Your task to perform on an android device: Search for "razer huntsman" on amazon, select the first entry, add it to the cart, then select checkout. Image 0: 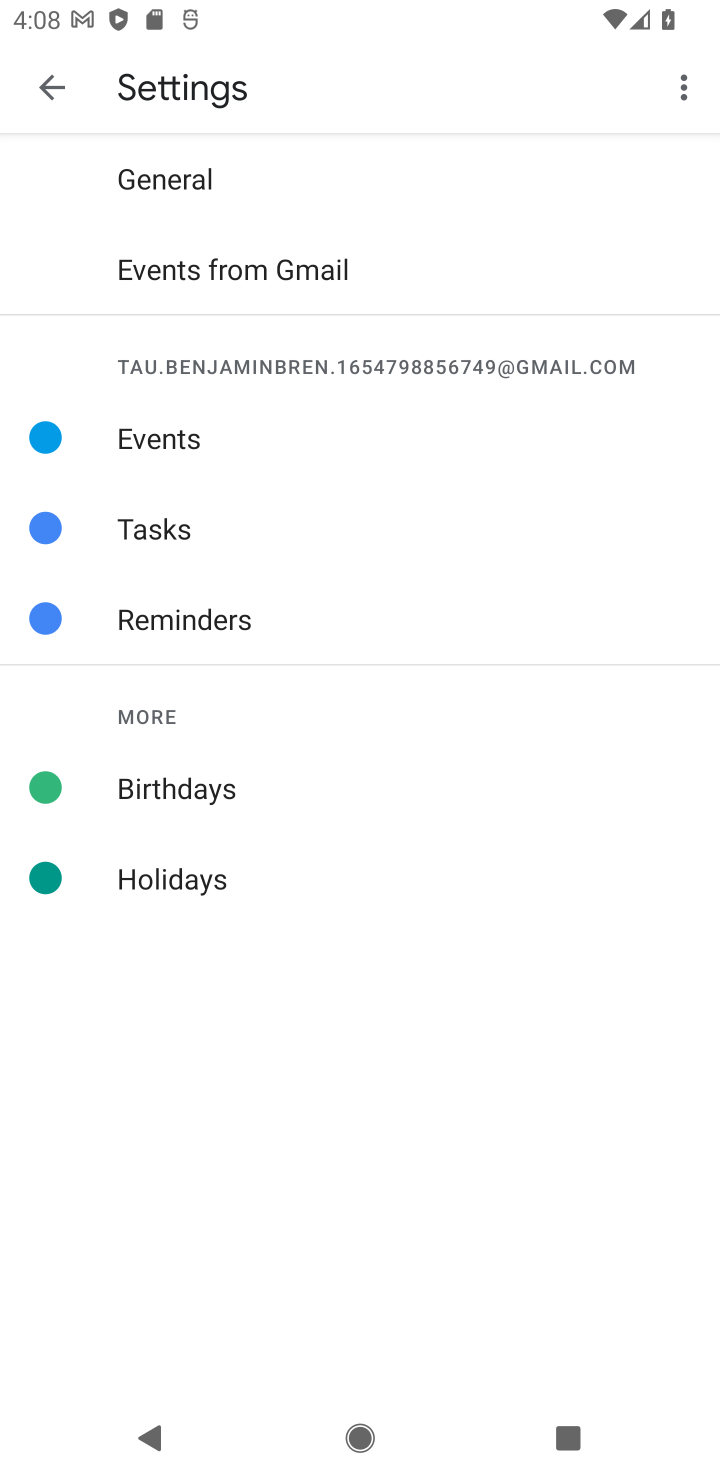
Step 0: press home button
Your task to perform on an android device: Search for "razer huntsman" on amazon, select the first entry, add it to the cart, then select checkout. Image 1: 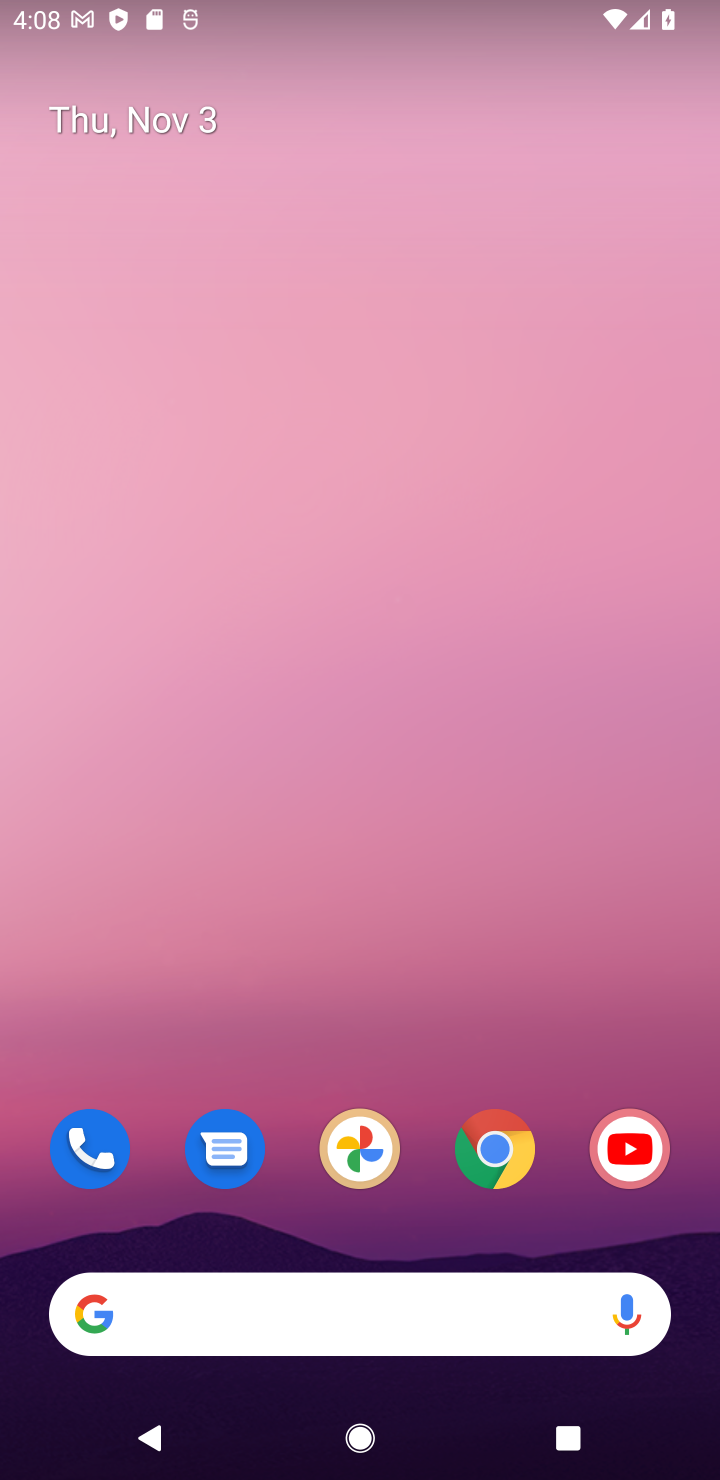
Step 1: drag from (432, 1097) to (310, 27)
Your task to perform on an android device: Search for "razer huntsman" on amazon, select the first entry, add it to the cart, then select checkout. Image 2: 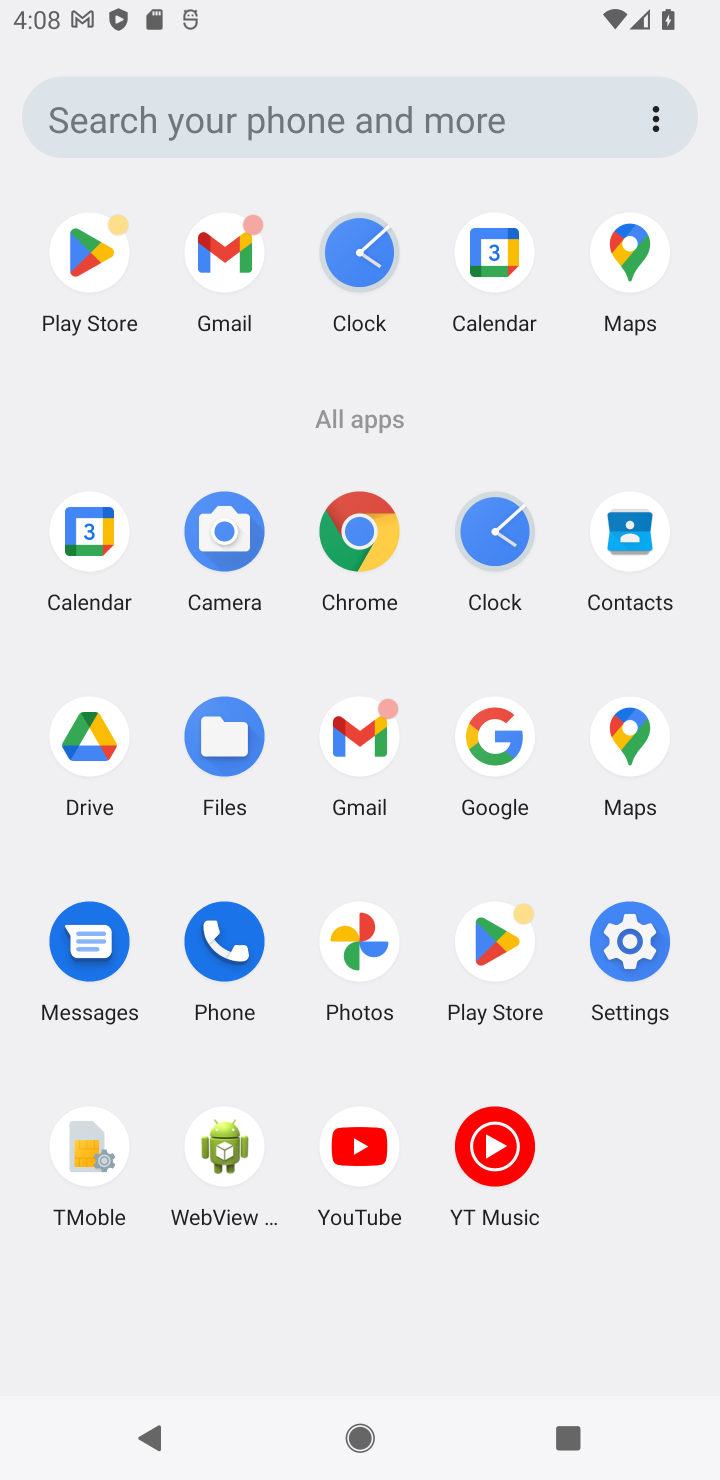
Step 2: click (354, 523)
Your task to perform on an android device: Search for "razer huntsman" on amazon, select the first entry, add it to the cart, then select checkout. Image 3: 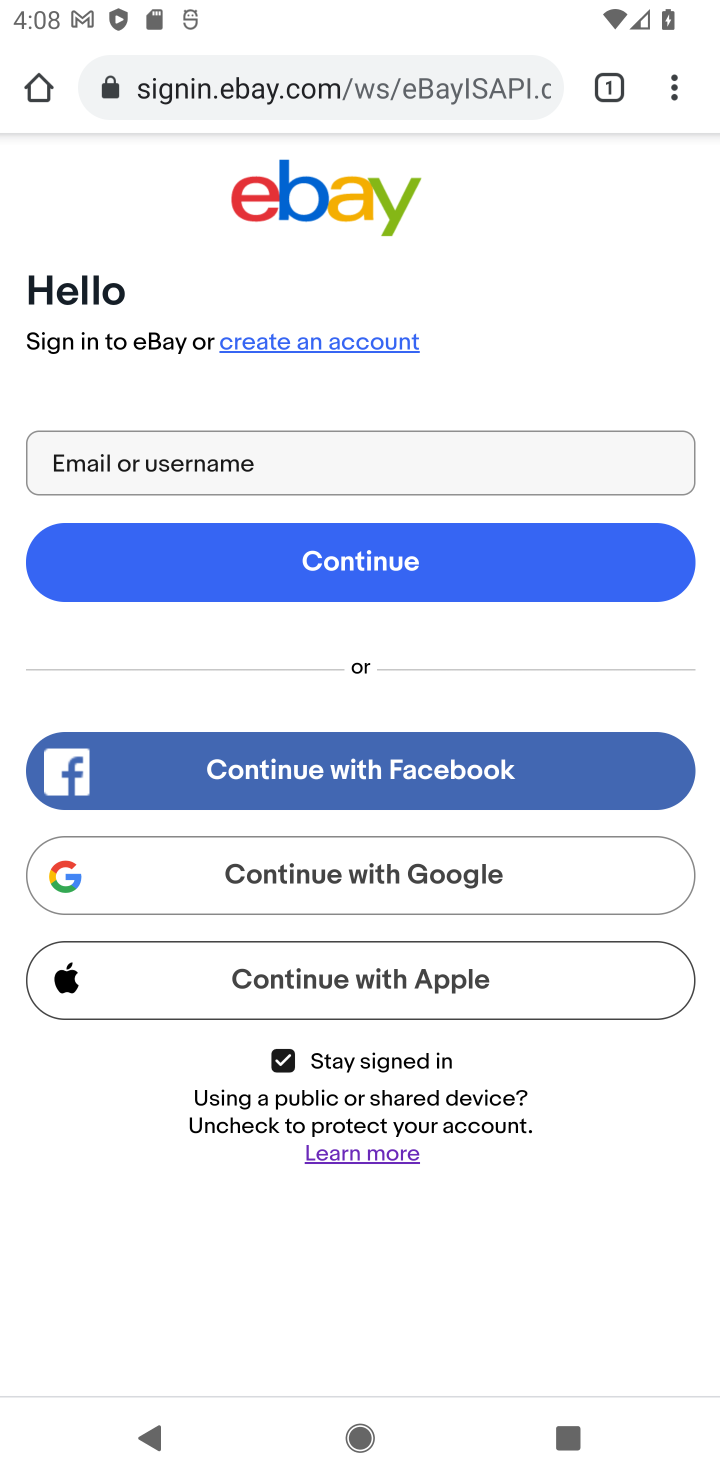
Step 3: click (277, 79)
Your task to perform on an android device: Search for "razer huntsman" on amazon, select the first entry, add it to the cart, then select checkout. Image 4: 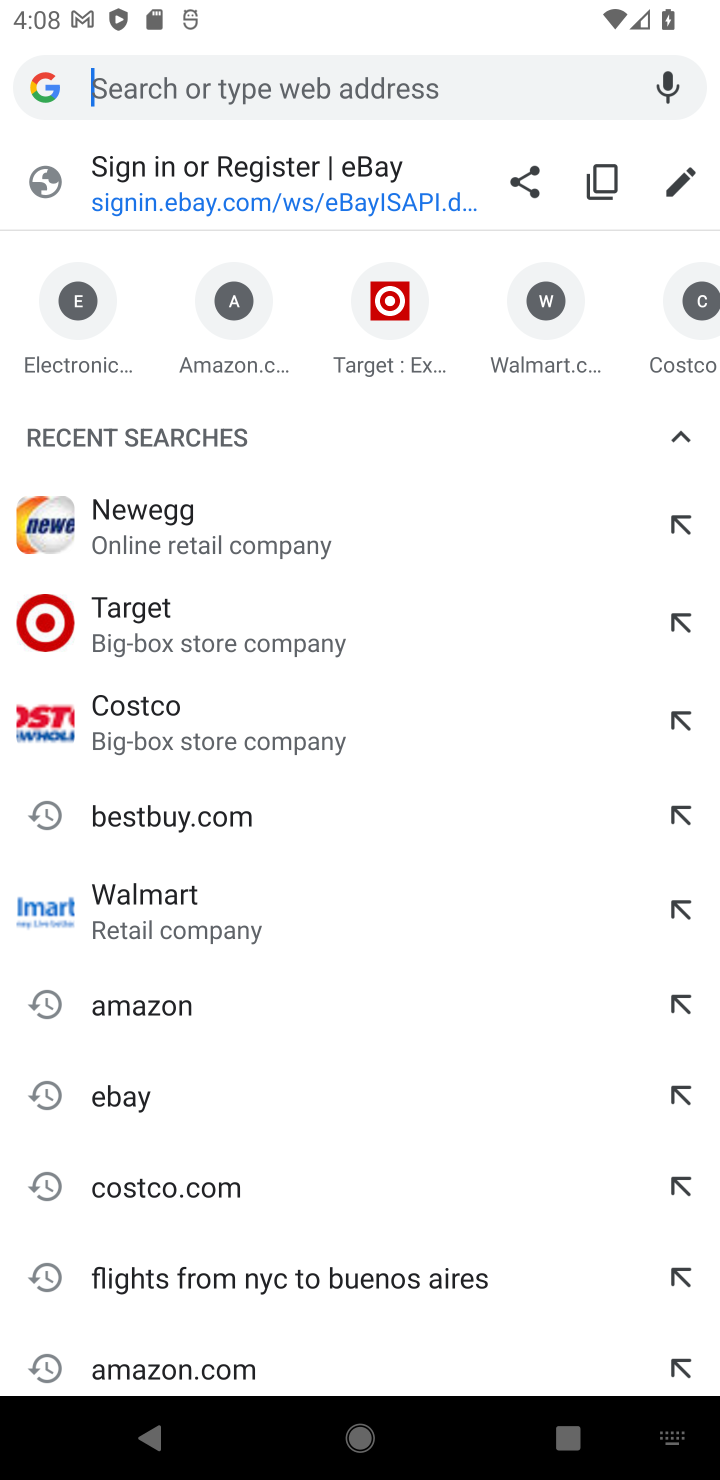
Step 4: click (236, 1003)
Your task to perform on an android device: Search for "razer huntsman" on amazon, select the first entry, add it to the cart, then select checkout. Image 5: 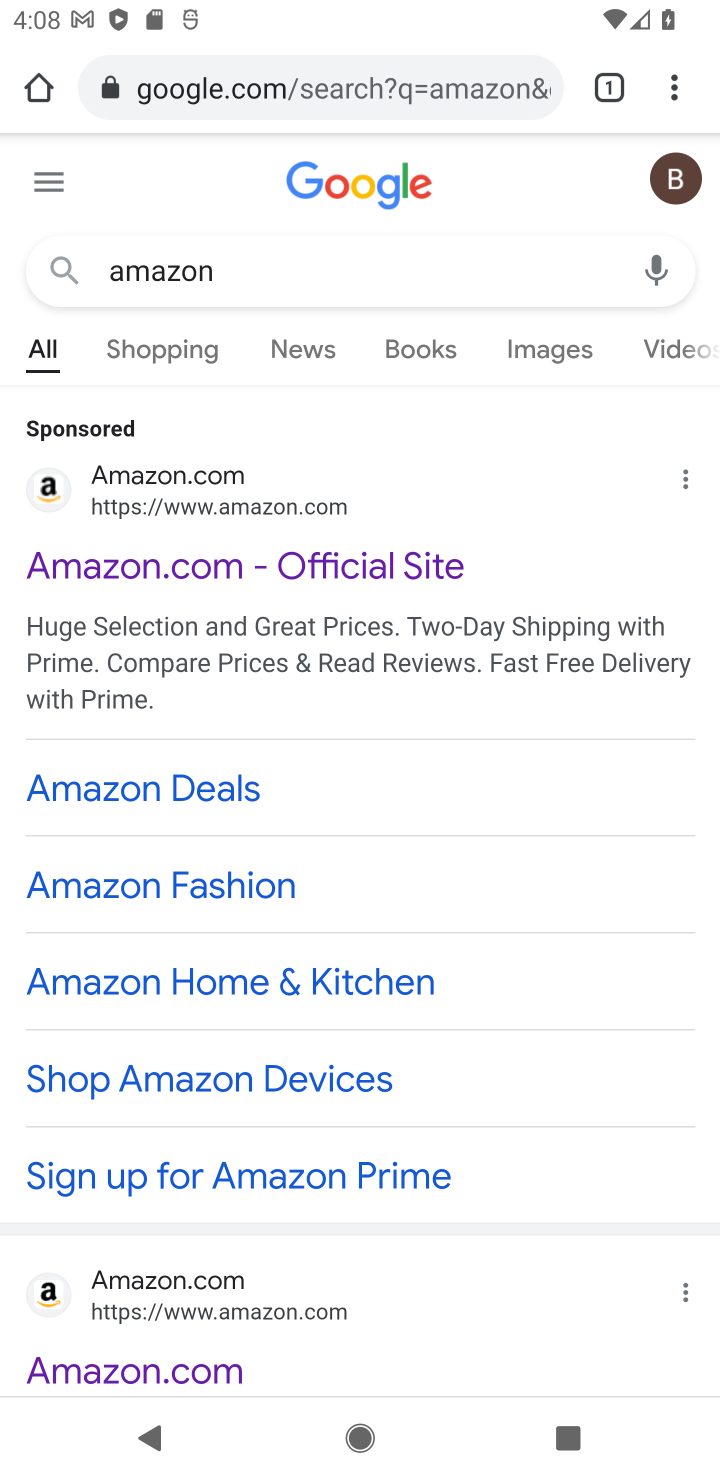
Step 5: click (205, 566)
Your task to perform on an android device: Search for "razer huntsman" on amazon, select the first entry, add it to the cart, then select checkout. Image 6: 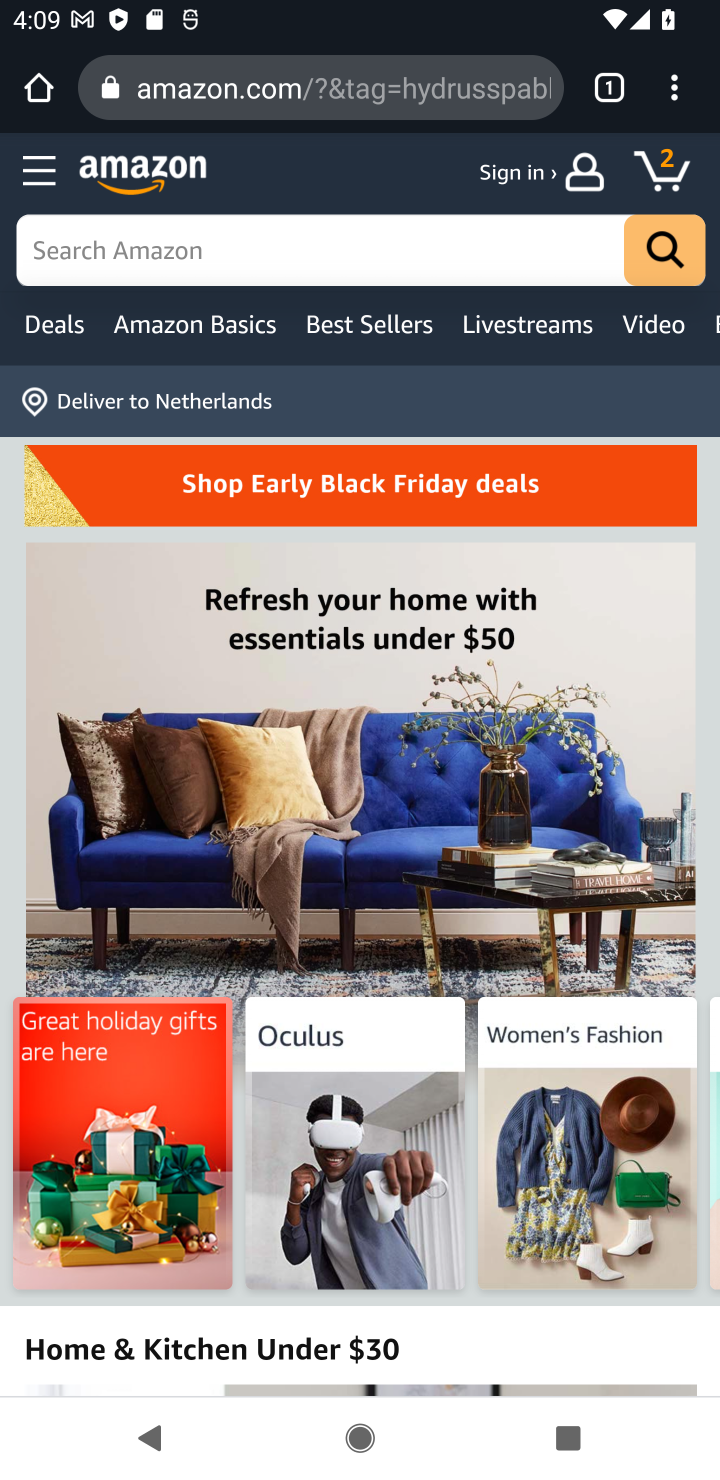
Step 6: click (222, 243)
Your task to perform on an android device: Search for "razer huntsman" on amazon, select the first entry, add it to the cart, then select checkout. Image 7: 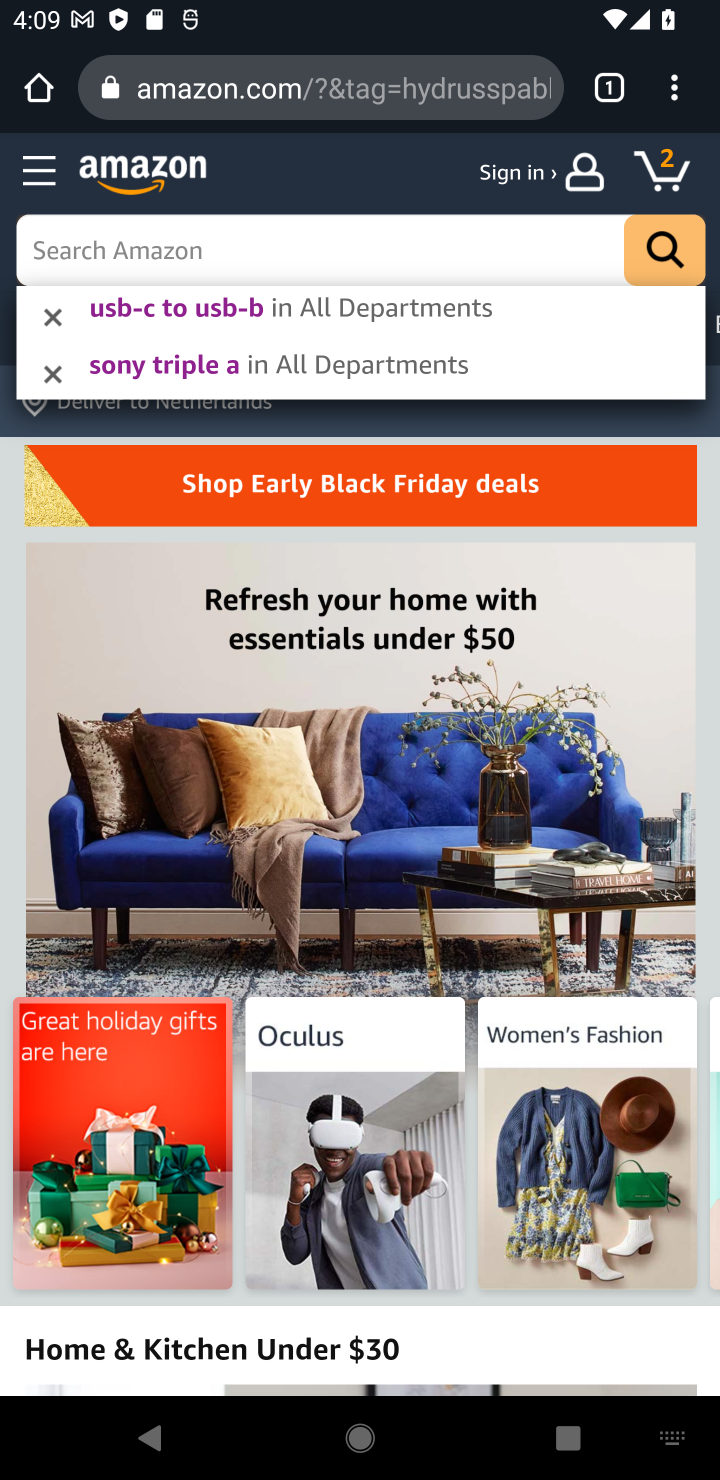
Step 7: type "razer huntsman"
Your task to perform on an android device: Search for "razer huntsman" on amazon, select the first entry, add it to the cart, then select checkout. Image 8: 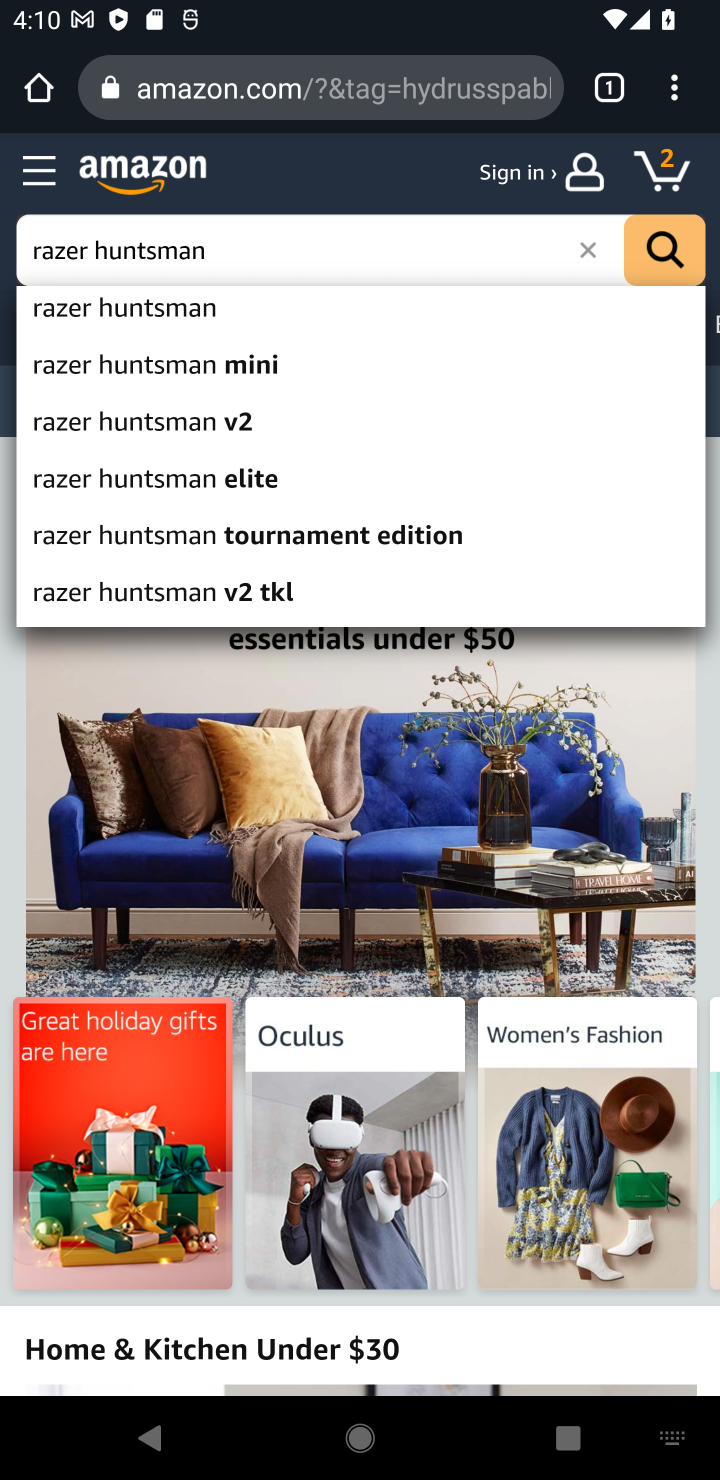
Step 8: click (129, 306)
Your task to perform on an android device: Search for "razer huntsman" on amazon, select the first entry, add it to the cart, then select checkout. Image 9: 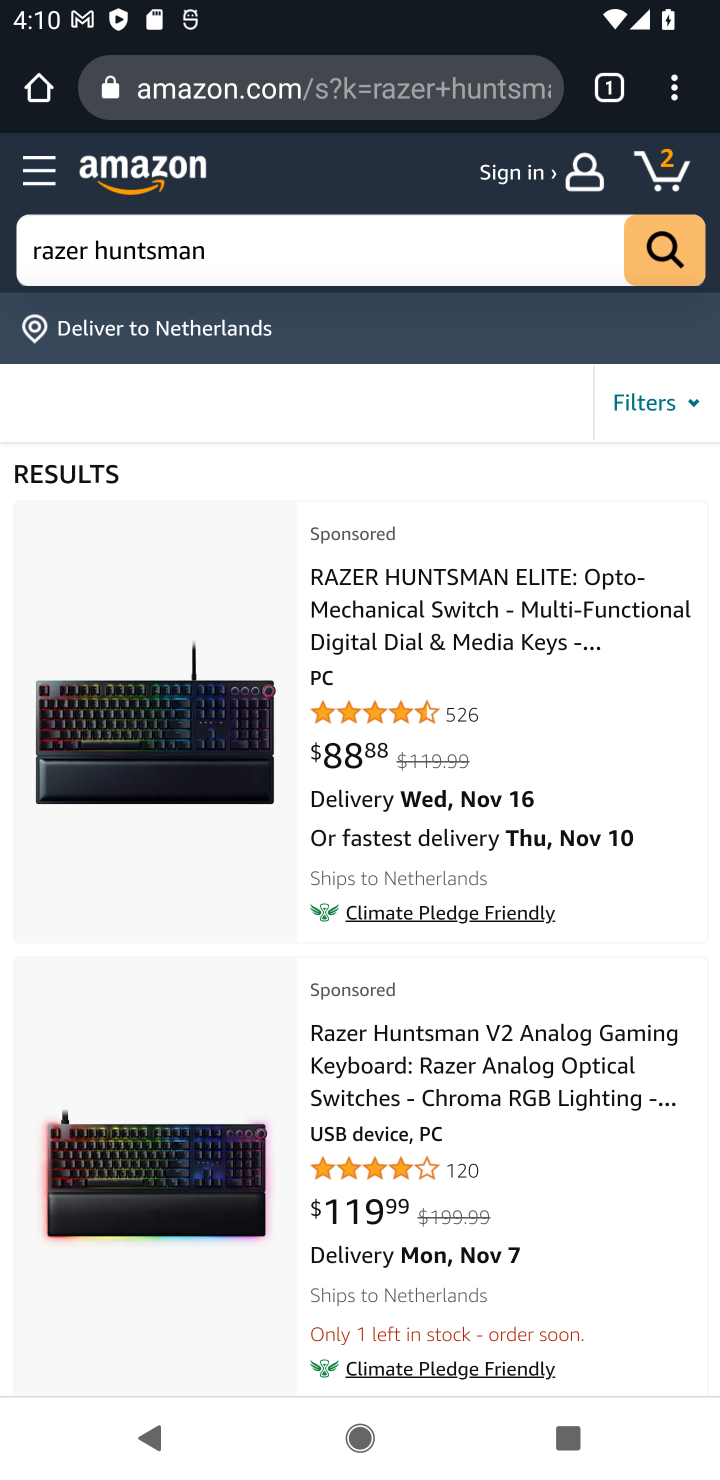
Step 9: click (661, 247)
Your task to perform on an android device: Search for "razer huntsman" on amazon, select the first entry, add it to the cart, then select checkout. Image 10: 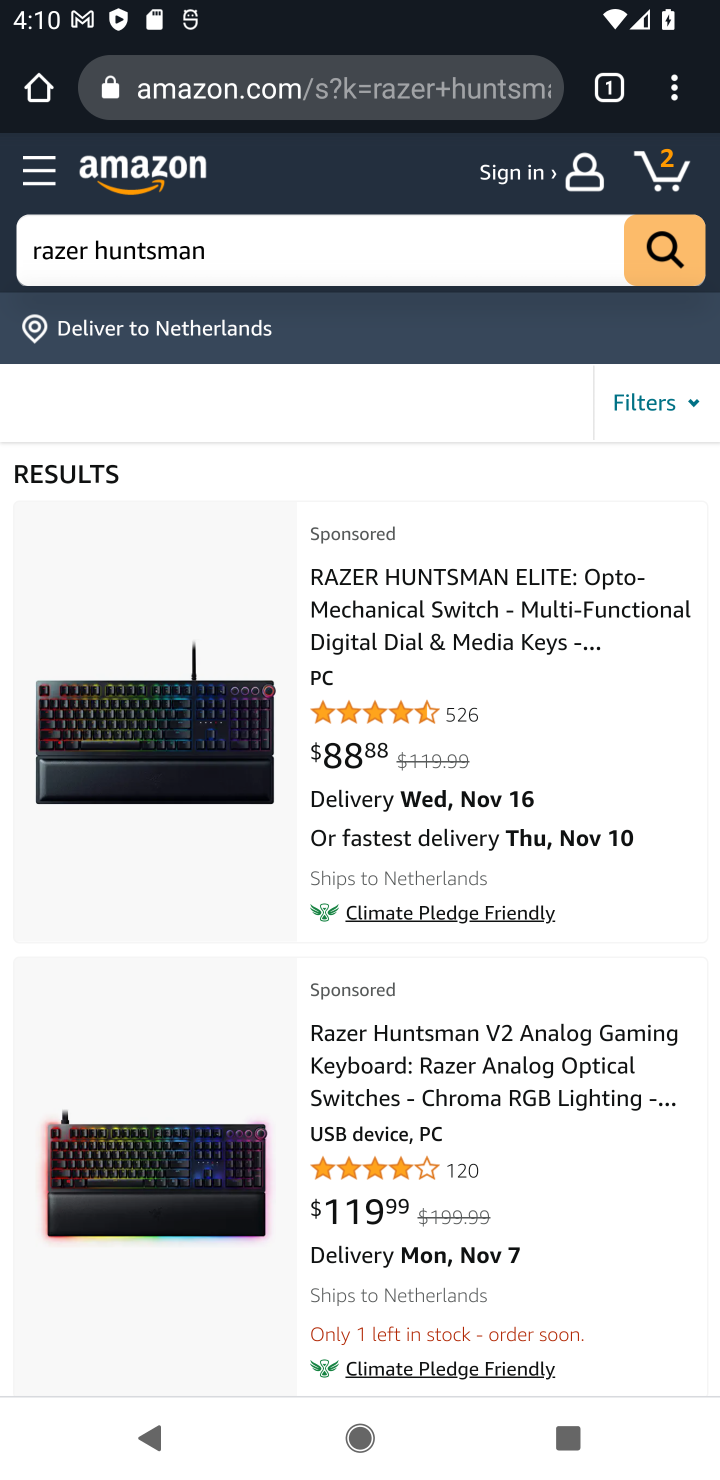
Step 10: click (441, 599)
Your task to perform on an android device: Search for "razer huntsman" on amazon, select the first entry, add it to the cart, then select checkout. Image 11: 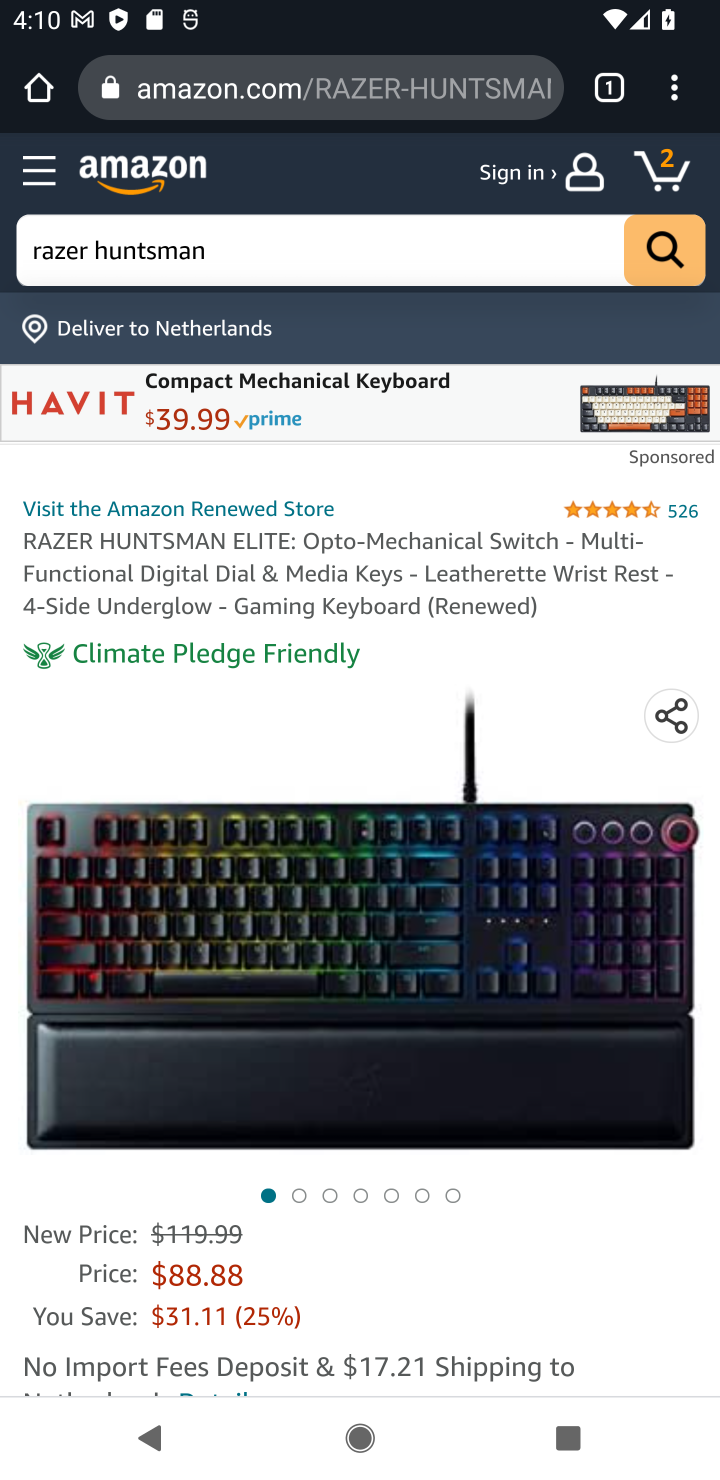
Step 11: drag from (434, 1295) to (386, 545)
Your task to perform on an android device: Search for "razer huntsman" on amazon, select the first entry, add it to the cart, then select checkout. Image 12: 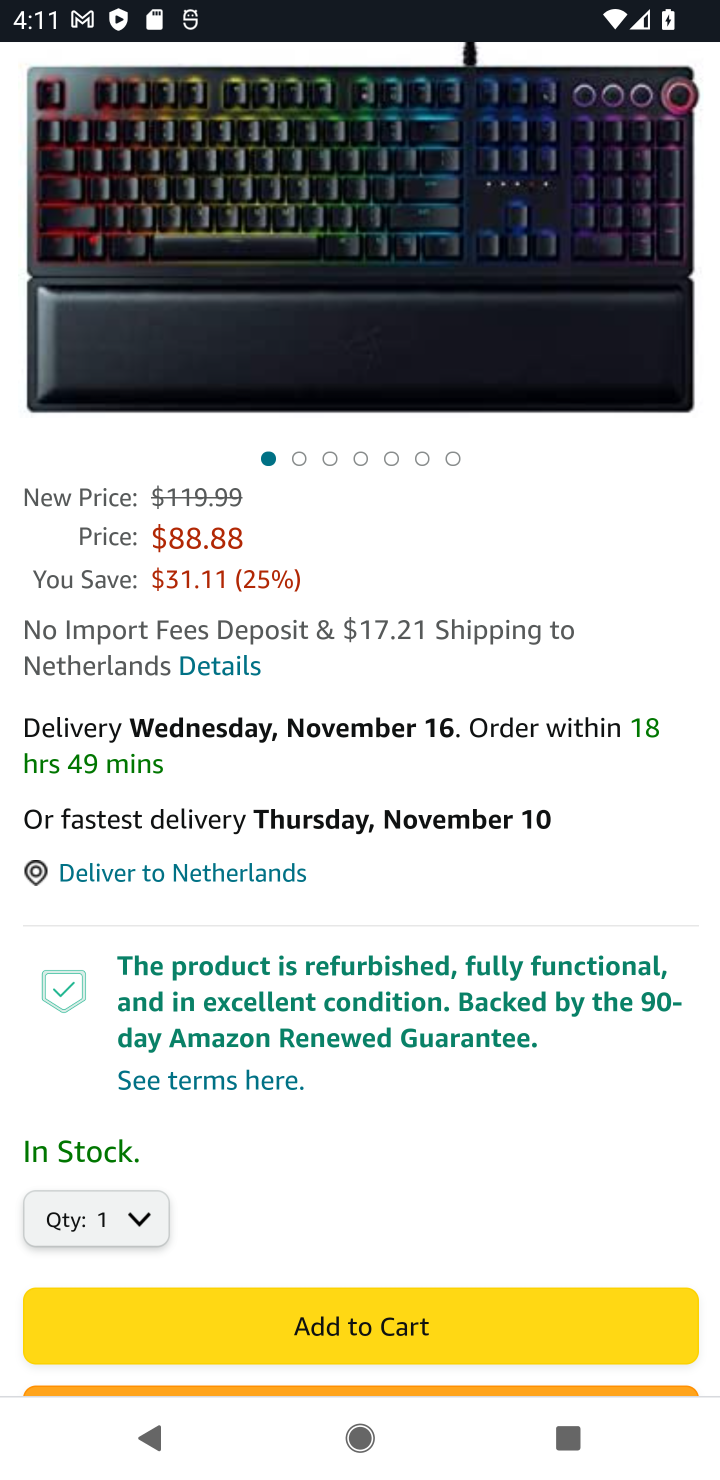
Step 12: click (359, 1324)
Your task to perform on an android device: Search for "razer huntsman" on amazon, select the first entry, add it to the cart, then select checkout. Image 13: 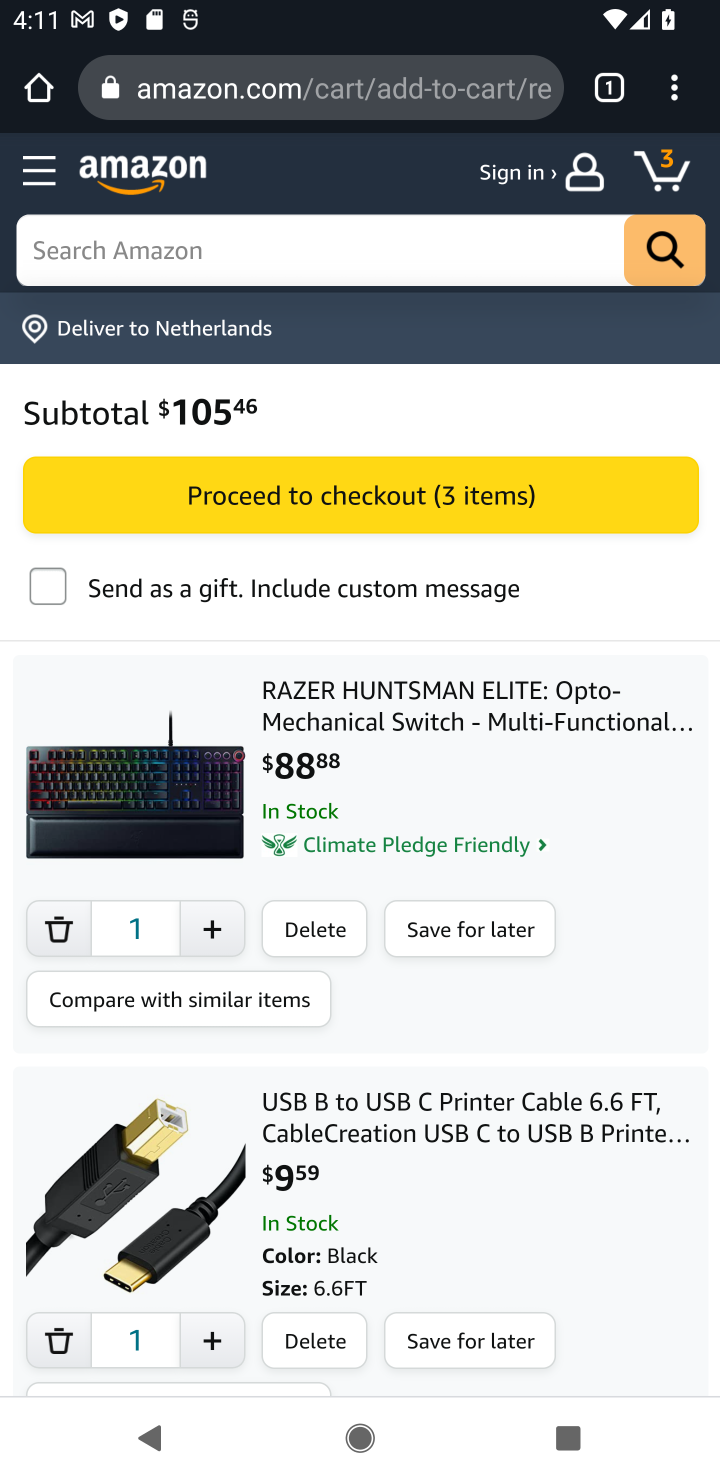
Step 13: click (667, 159)
Your task to perform on an android device: Search for "razer huntsman" on amazon, select the first entry, add it to the cart, then select checkout. Image 14: 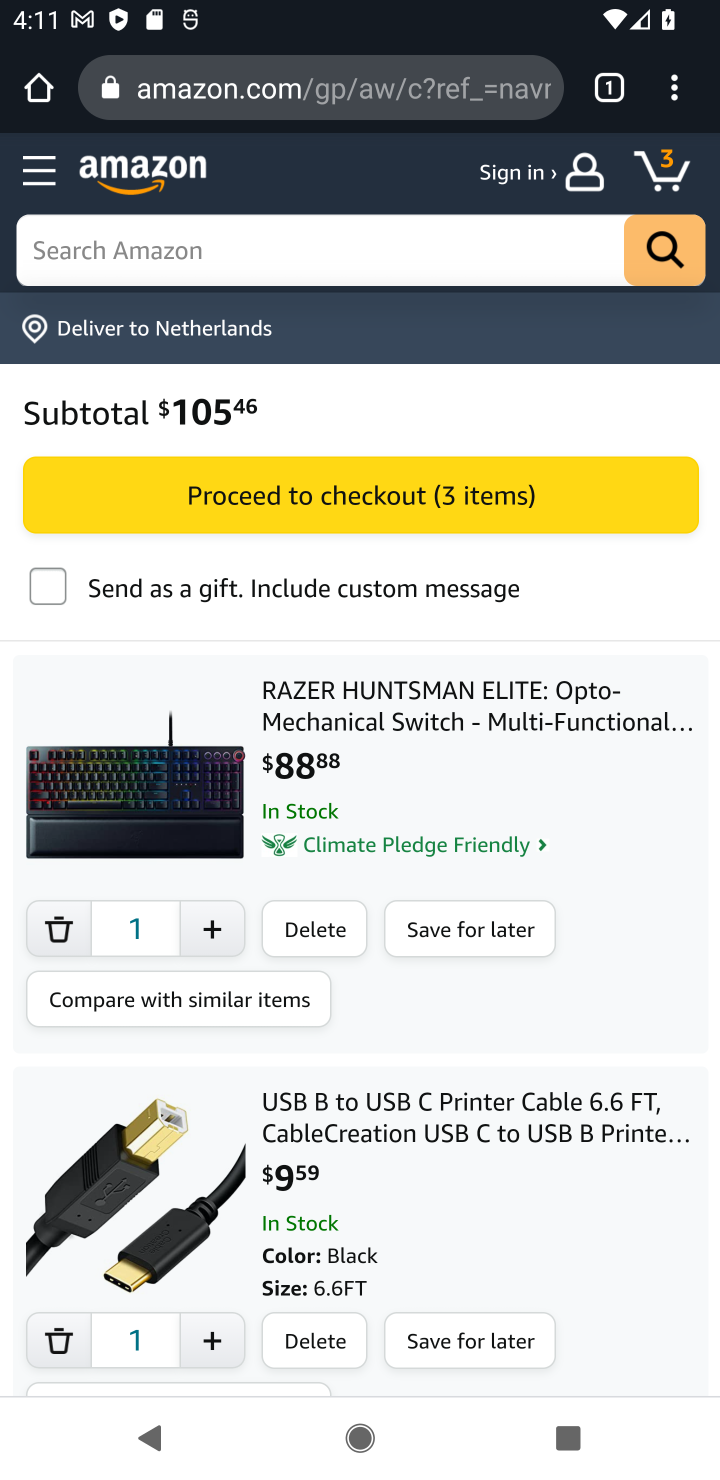
Step 14: click (334, 503)
Your task to perform on an android device: Search for "razer huntsman" on amazon, select the first entry, add it to the cart, then select checkout. Image 15: 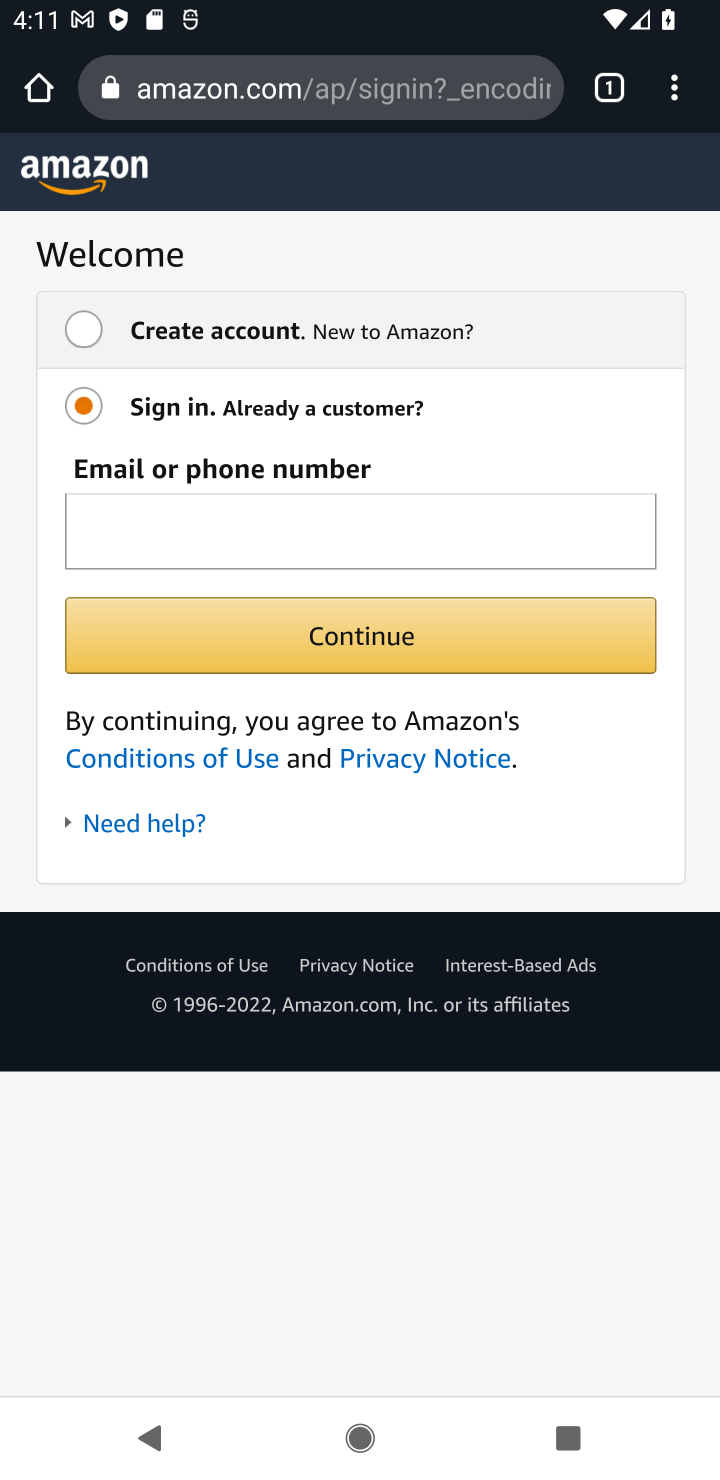
Step 15: task complete